Your task to perform on an android device: turn vacation reply on in the gmail app Image 0: 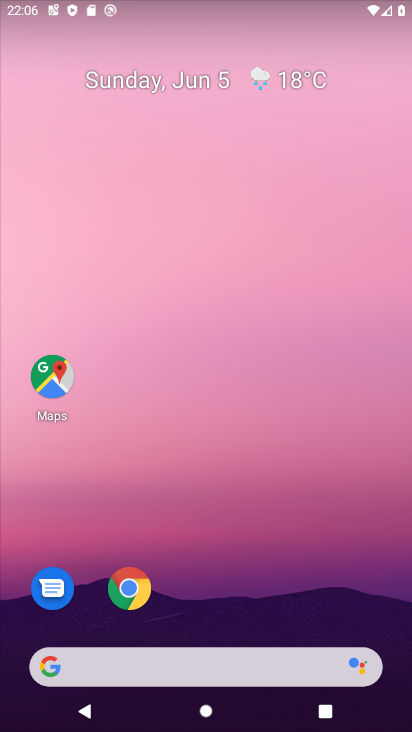
Step 0: drag from (373, 610) to (407, 148)
Your task to perform on an android device: turn vacation reply on in the gmail app Image 1: 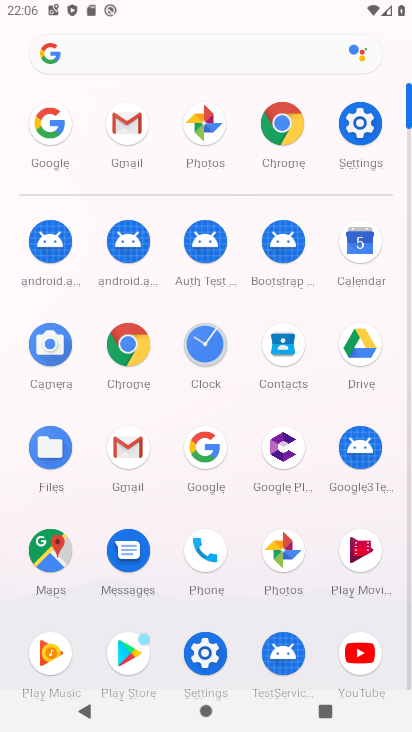
Step 1: click (128, 445)
Your task to perform on an android device: turn vacation reply on in the gmail app Image 2: 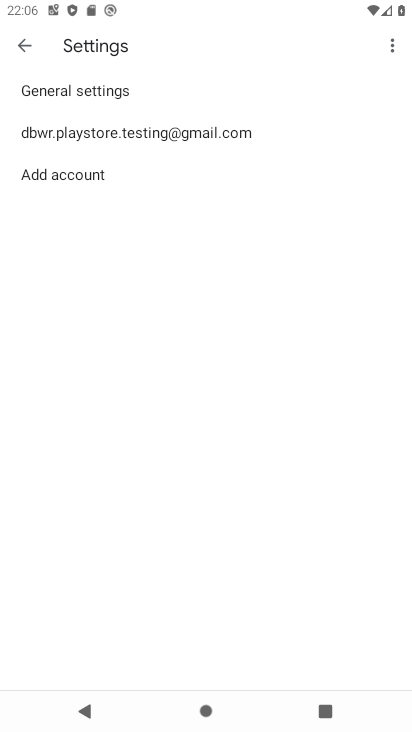
Step 2: click (115, 134)
Your task to perform on an android device: turn vacation reply on in the gmail app Image 3: 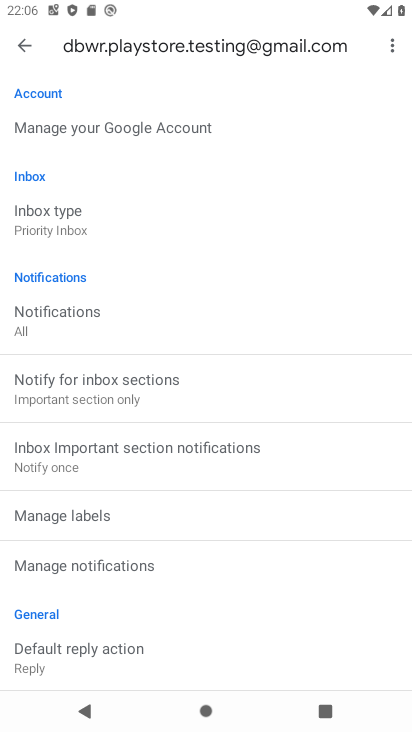
Step 3: drag from (319, 407) to (333, 304)
Your task to perform on an android device: turn vacation reply on in the gmail app Image 4: 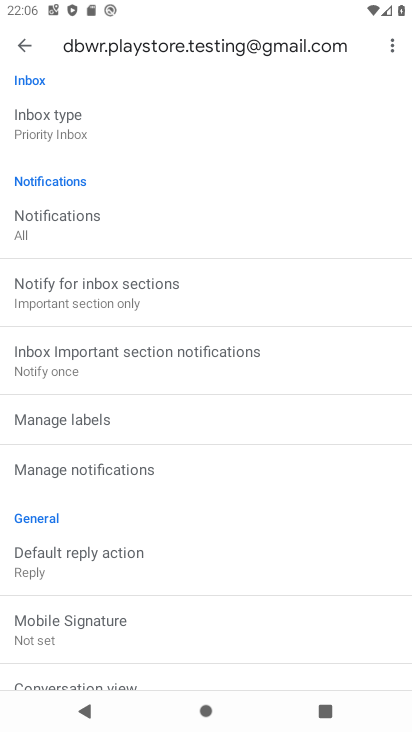
Step 4: drag from (312, 453) to (333, 327)
Your task to perform on an android device: turn vacation reply on in the gmail app Image 5: 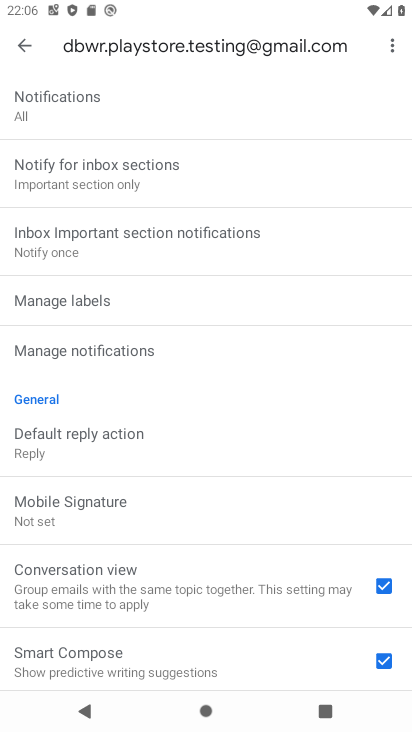
Step 5: drag from (315, 451) to (317, 337)
Your task to perform on an android device: turn vacation reply on in the gmail app Image 6: 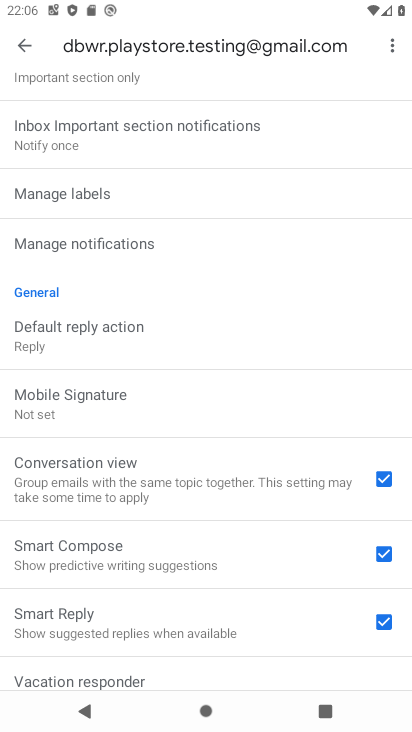
Step 6: drag from (270, 543) to (280, 364)
Your task to perform on an android device: turn vacation reply on in the gmail app Image 7: 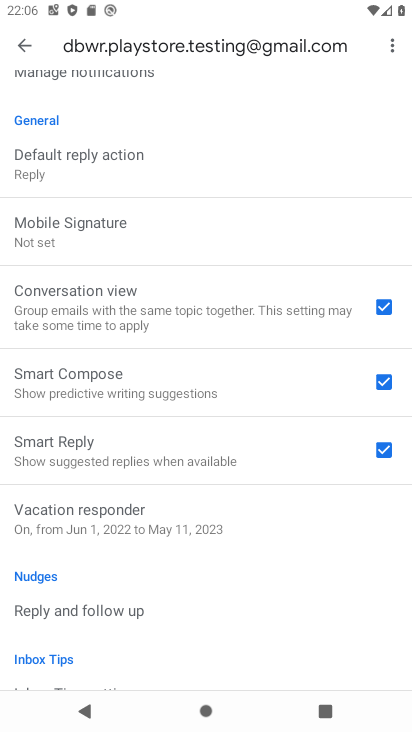
Step 7: drag from (258, 548) to (267, 347)
Your task to perform on an android device: turn vacation reply on in the gmail app Image 8: 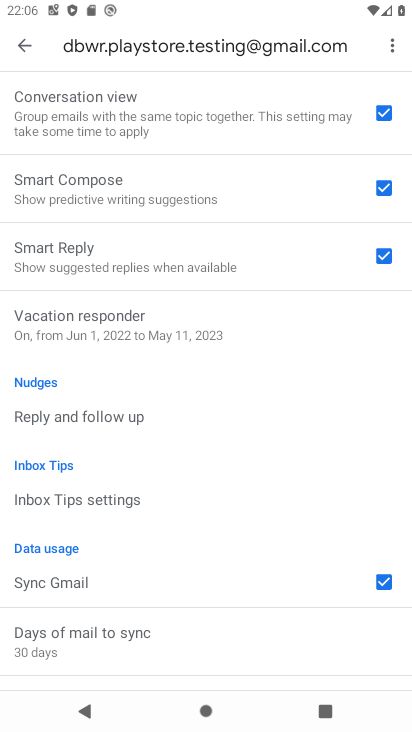
Step 8: click (170, 323)
Your task to perform on an android device: turn vacation reply on in the gmail app Image 9: 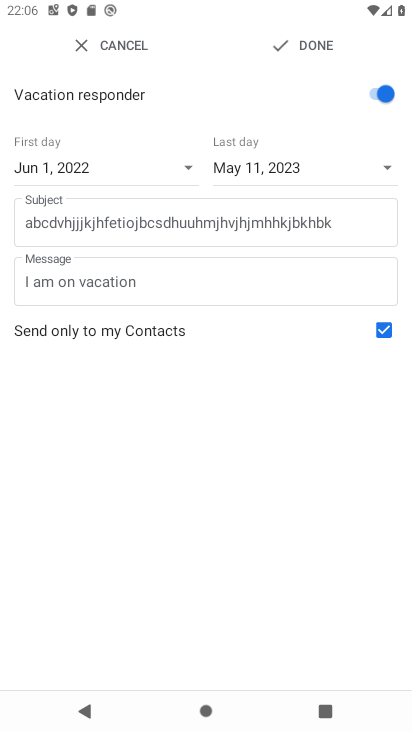
Step 9: task complete